Your task to perform on an android device: turn on priority inbox in the gmail app Image 0: 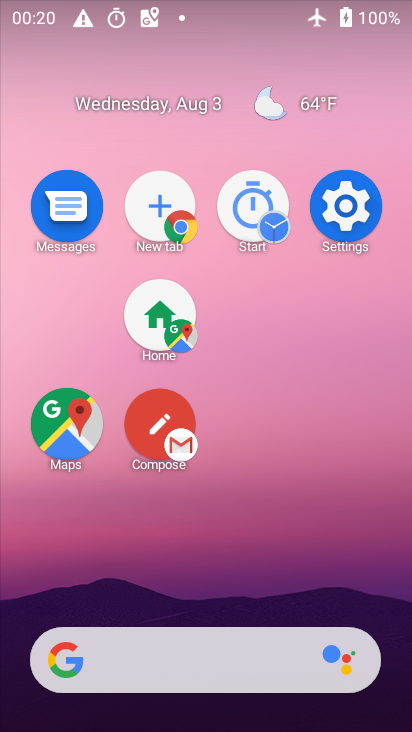
Step 0: click (410, 491)
Your task to perform on an android device: turn on priority inbox in the gmail app Image 1: 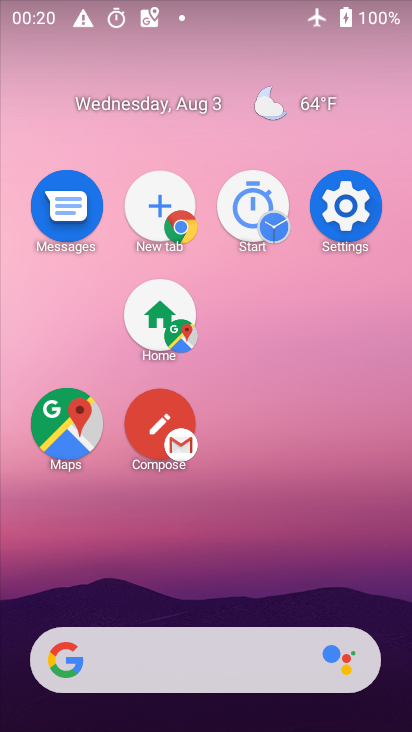
Step 1: drag from (207, 380) to (207, 233)
Your task to perform on an android device: turn on priority inbox in the gmail app Image 2: 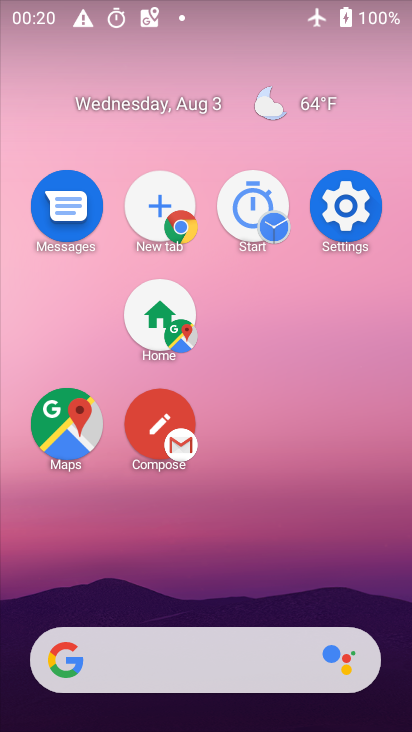
Step 2: drag from (284, 465) to (265, 65)
Your task to perform on an android device: turn on priority inbox in the gmail app Image 3: 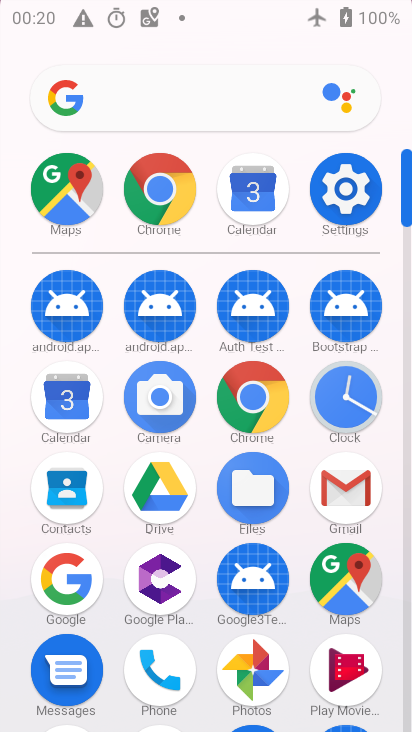
Step 3: drag from (238, 253) to (225, 135)
Your task to perform on an android device: turn on priority inbox in the gmail app Image 4: 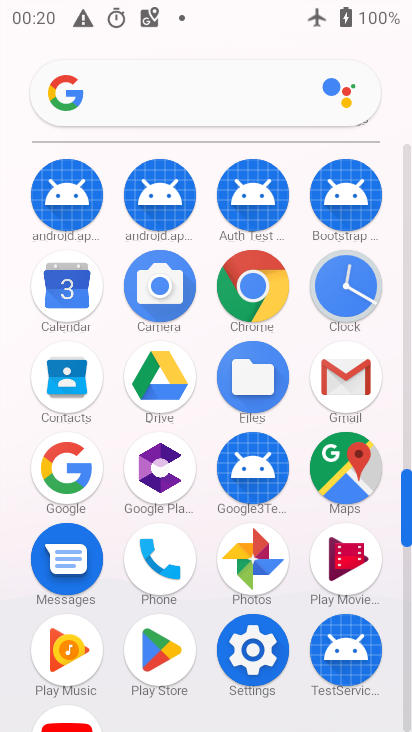
Step 4: drag from (249, 265) to (249, 209)
Your task to perform on an android device: turn on priority inbox in the gmail app Image 5: 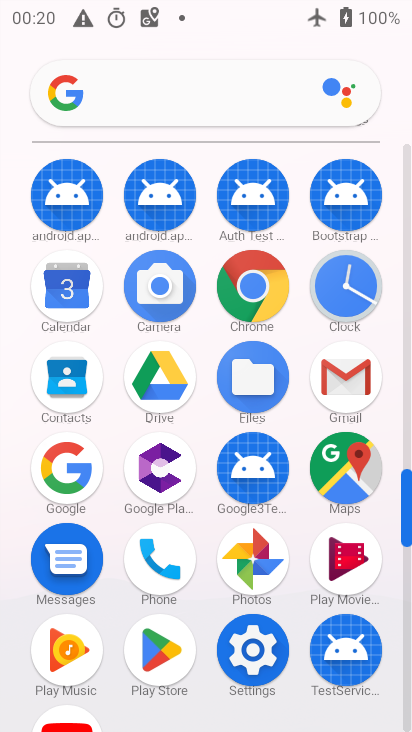
Step 5: click (355, 375)
Your task to perform on an android device: turn on priority inbox in the gmail app Image 6: 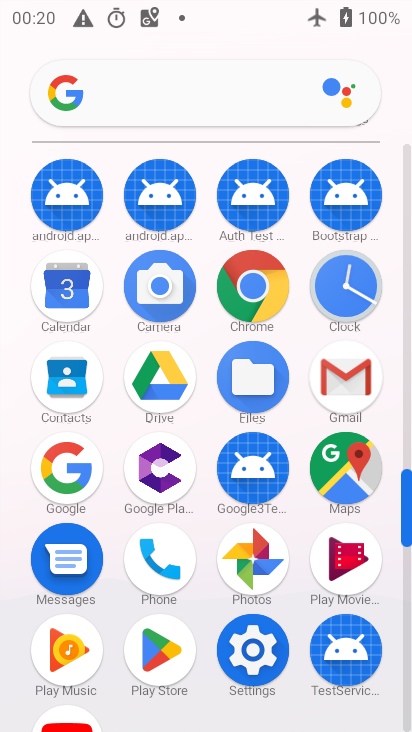
Step 6: click (354, 374)
Your task to perform on an android device: turn on priority inbox in the gmail app Image 7: 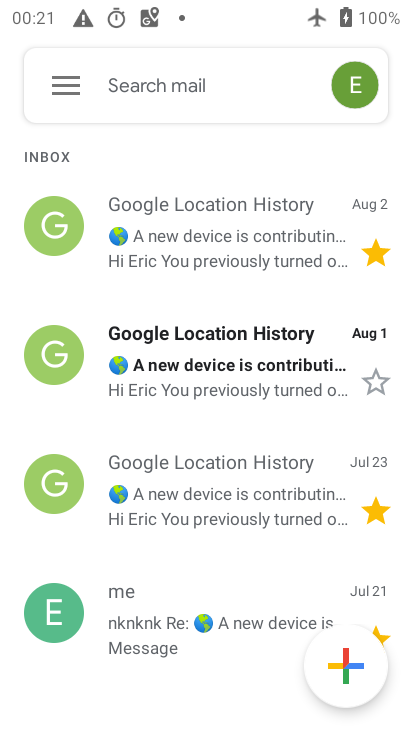
Step 7: drag from (79, 91) to (131, 591)
Your task to perform on an android device: turn on priority inbox in the gmail app Image 8: 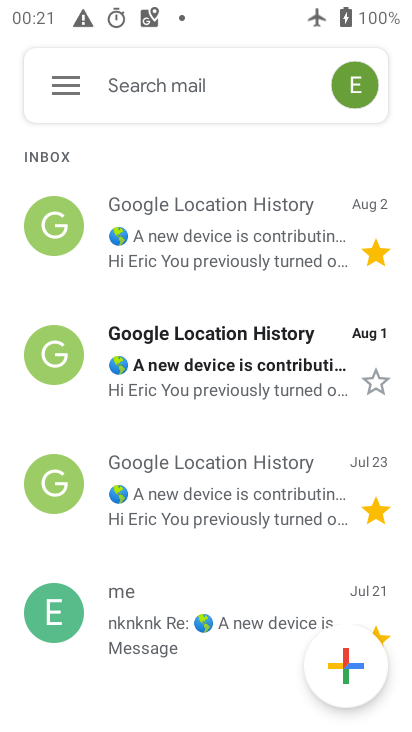
Step 8: click (75, 90)
Your task to perform on an android device: turn on priority inbox in the gmail app Image 9: 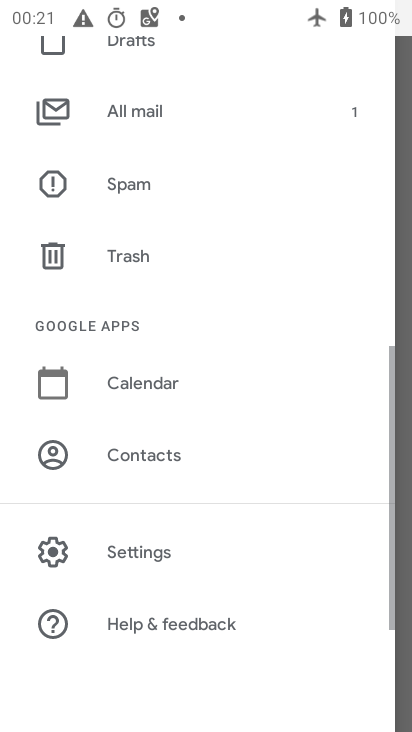
Step 9: drag from (74, 91) to (157, 569)
Your task to perform on an android device: turn on priority inbox in the gmail app Image 10: 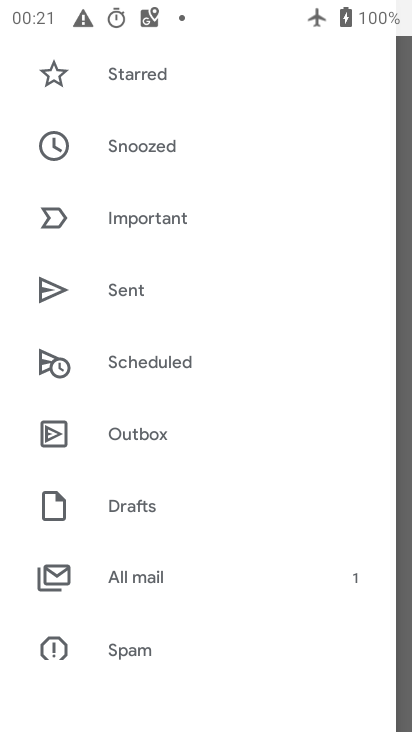
Step 10: drag from (131, 472) to (136, 237)
Your task to perform on an android device: turn on priority inbox in the gmail app Image 11: 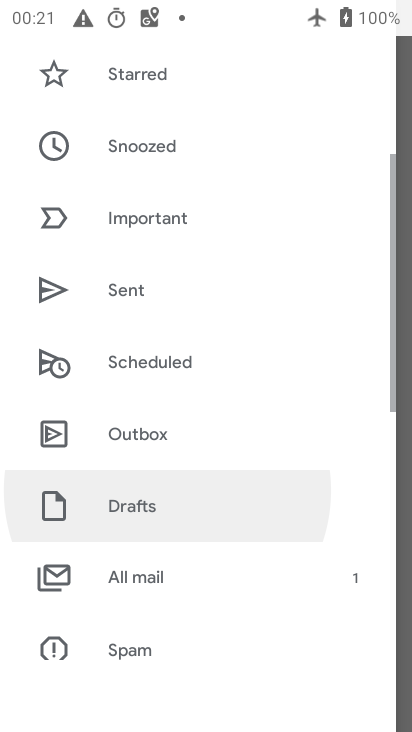
Step 11: drag from (145, 486) to (150, 158)
Your task to perform on an android device: turn on priority inbox in the gmail app Image 12: 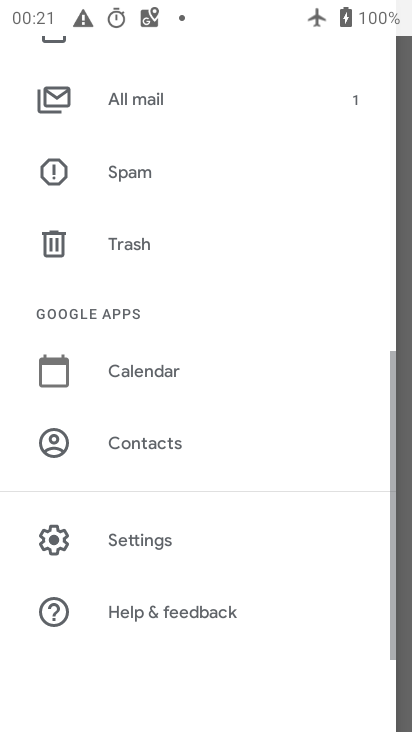
Step 12: drag from (199, 538) to (192, 162)
Your task to perform on an android device: turn on priority inbox in the gmail app Image 13: 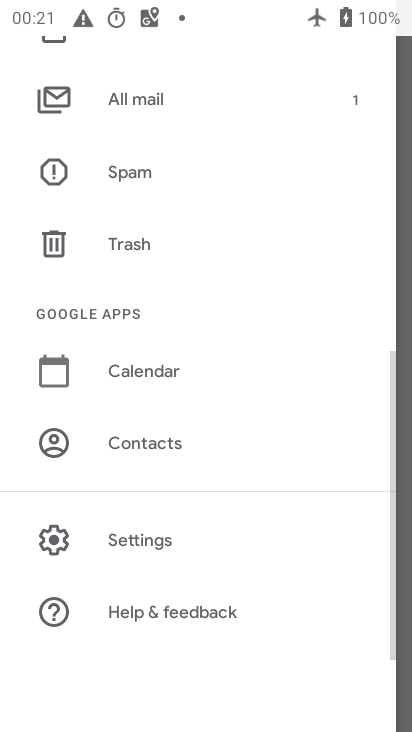
Step 13: click (142, 533)
Your task to perform on an android device: turn on priority inbox in the gmail app Image 14: 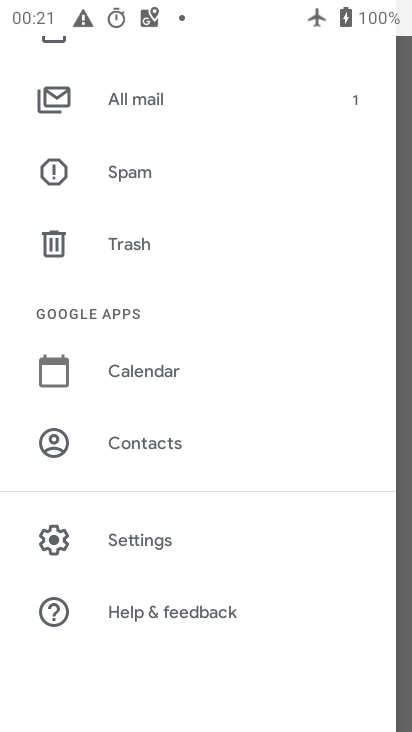
Step 14: click (142, 533)
Your task to perform on an android device: turn on priority inbox in the gmail app Image 15: 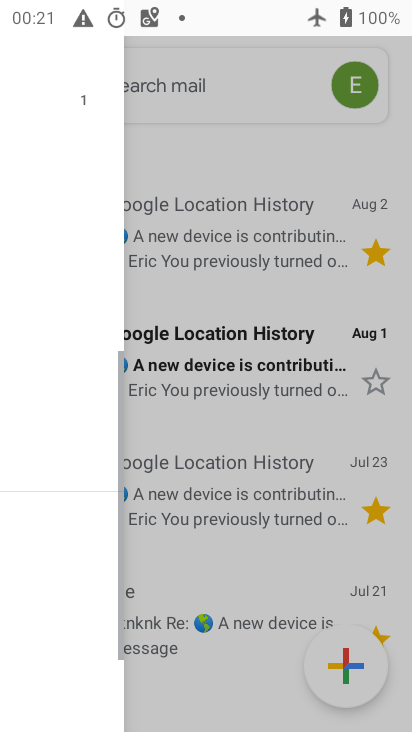
Step 15: click (142, 533)
Your task to perform on an android device: turn on priority inbox in the gmail app Image 16: 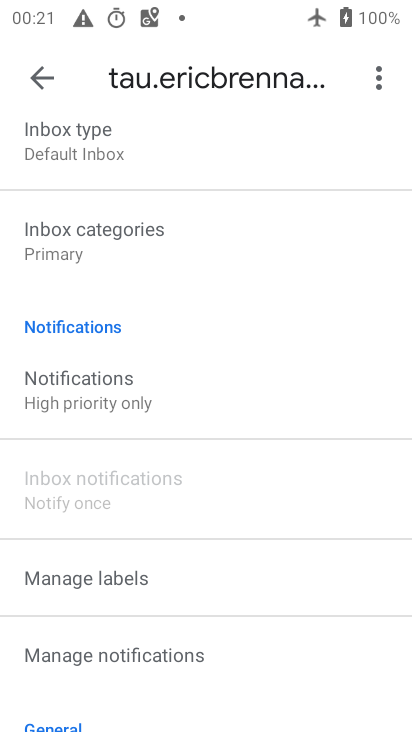
Step 16: click (77, 148)
Your task to perform on an android device: turn on priority inbox in the gmail app Image 17: 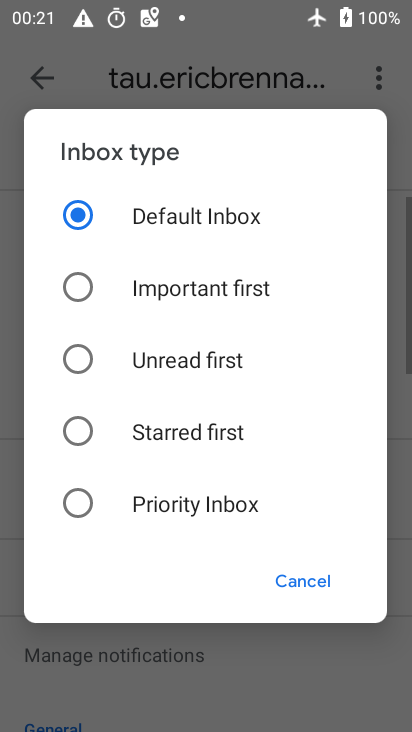
Step 17: click (78, 147)
Your task to perform on an android device: turn on priority inbox in the gmail app Image 18: 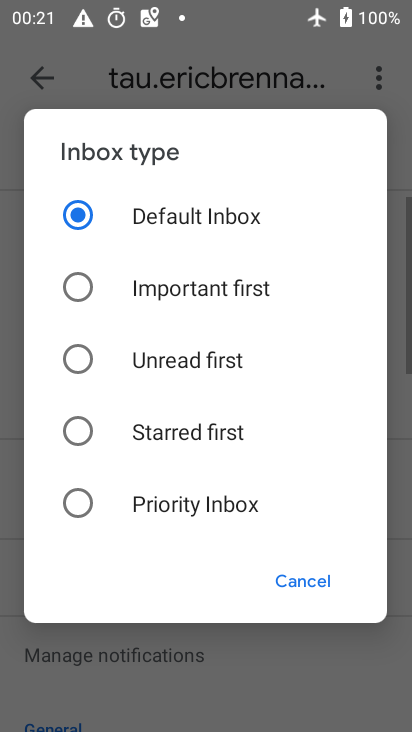
Step 18: click (80, 148)
Your task to perform on an android device: turn on priority inbox in the gmail app Image 19: 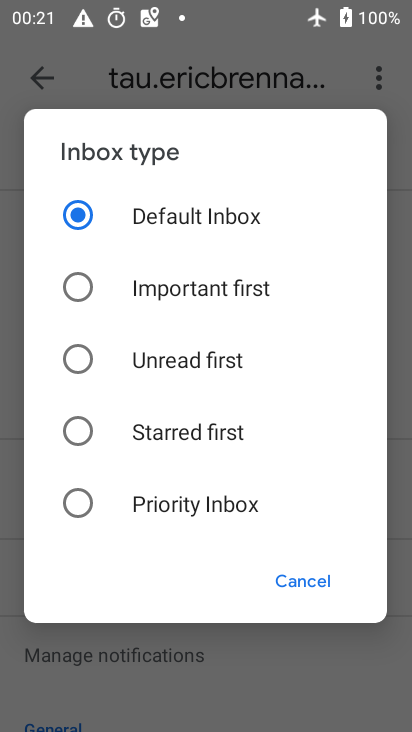
Step 19: click (79, 500)
Your task to perform on an android device: turn on priority inbox in the gmail app Image 20: 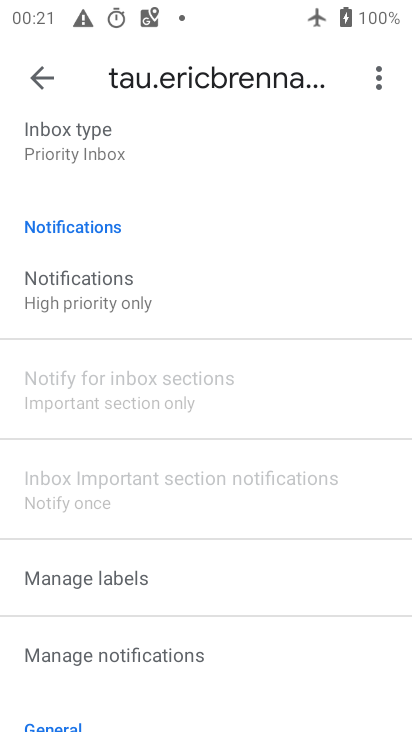
Step 20: task complete